Your task to perform on an android device: check android version Image 0: 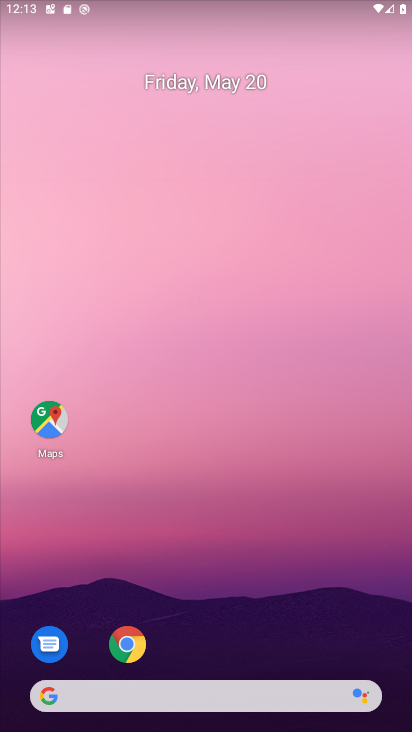
Step 0: drag from (180, 675) to (218, 372)
Your task to perform on an android device: check android version Image 1: 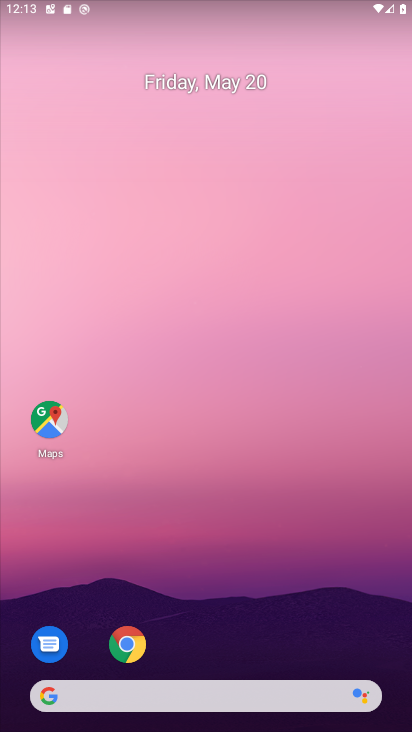
Step 1: drag from (197, 669) to (232, 267)
Your task to perform on an android device: check android version Image 2: 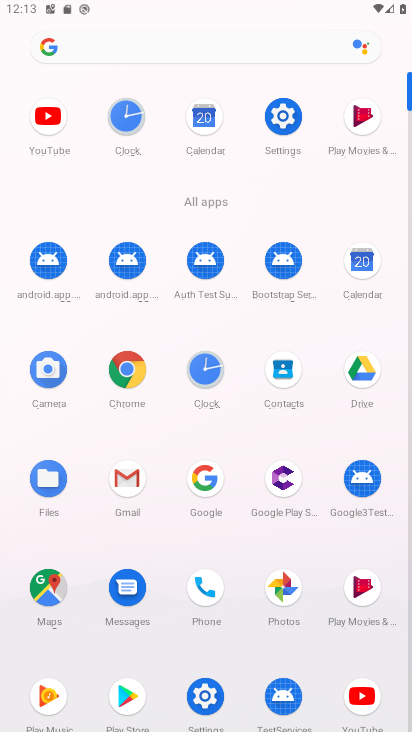
Step 2: click (281, 112)
Your task to perform on an android device: check android version Image 3: 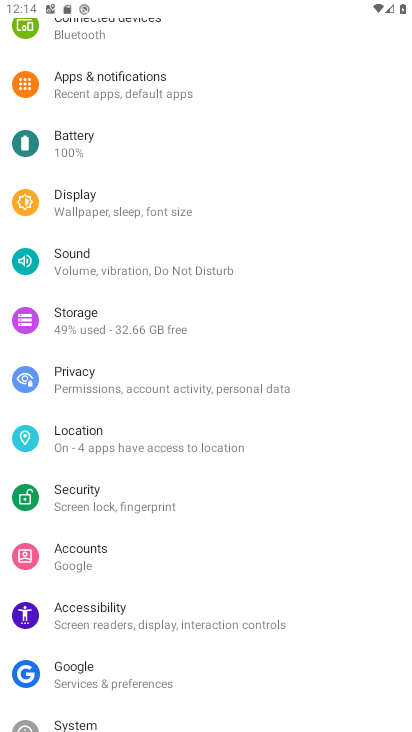
Step 3: drag from (158, 693) to (211, 308)
Your task to perform on an android device: check android version Image 4: 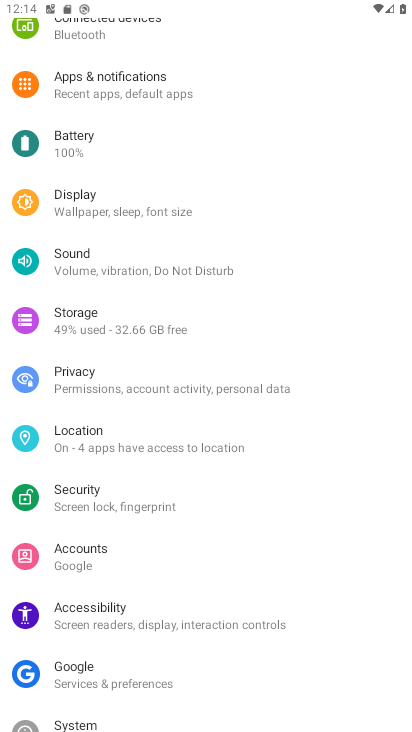
Step 4: drag from (139, 707) to (182, 287)
Your task to perform on an android device: check android version Image 5: 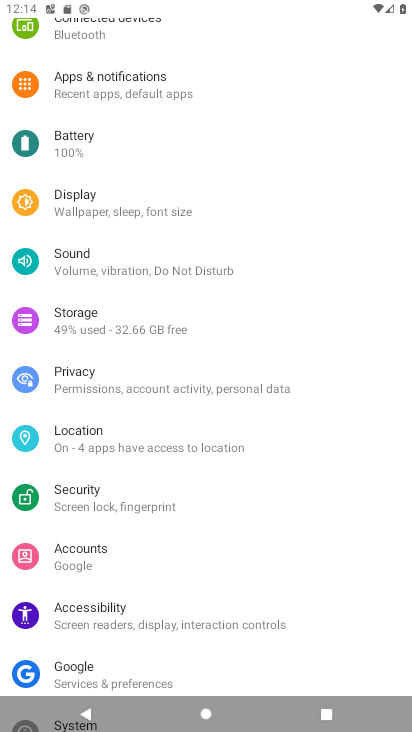
Step 5: drag from (175, 691) to (213, 299)
Your task to perform on an android device: check android version Image 6: 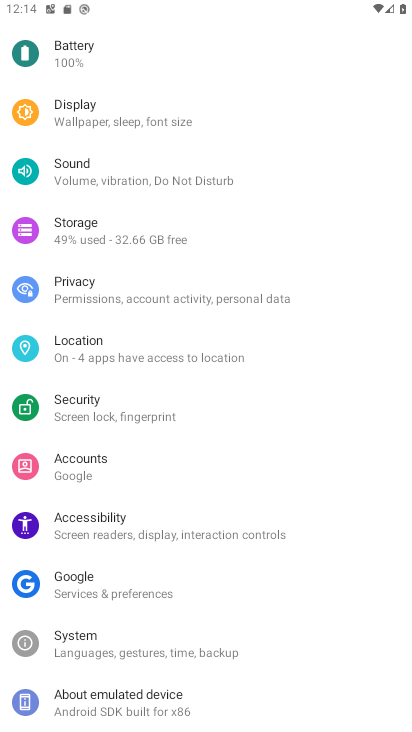
Step 6: click (156, 706)
Your task to perform on an android device: check android version Image 7: 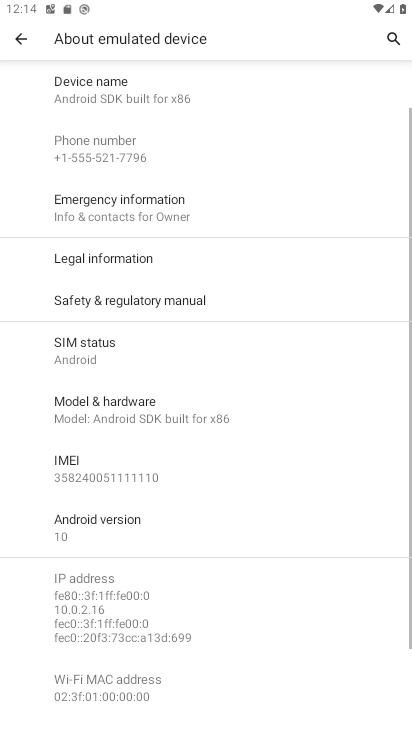
Step 7: drag from (158, 712) to (190, 368)
Your task to perform on an android device: check android version Image 8: 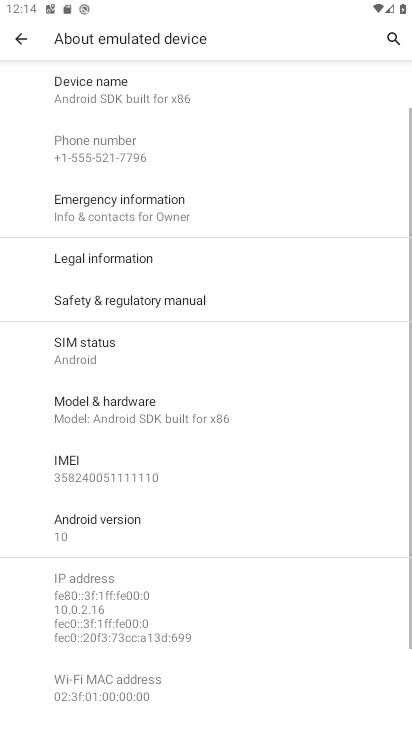
Step 8: click (84, 532)
Your task to perform on an android device: check android version Image 9: 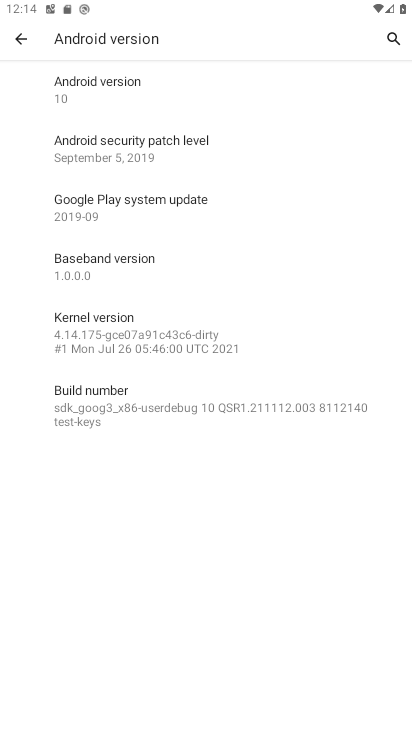
Step 9: task complete